Your task to perform on an android device: change your default location settings in chrome Image 0: 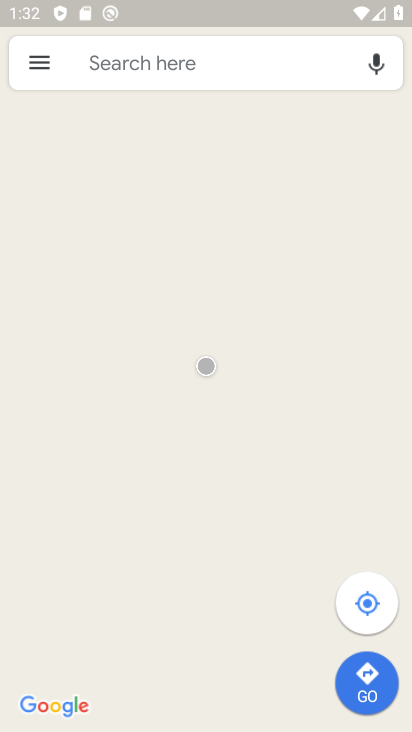
Step 0: press home button
Your task to perform on an android device: change your default location settings in chrome Image 1: 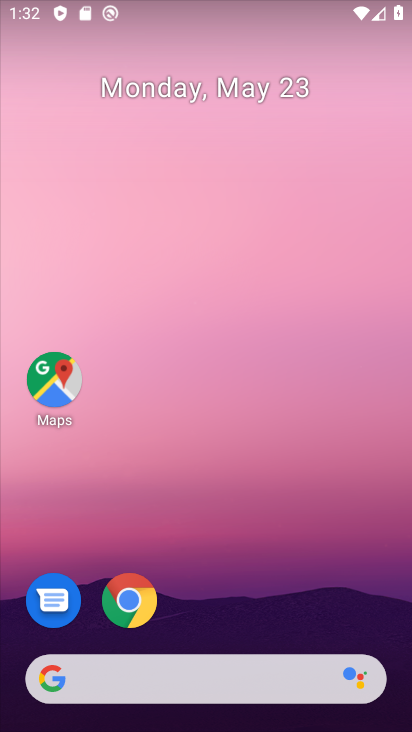
Step 1: drag from (227, 613) to (205, 97)
Your task to perform on an android device: change your default location settings in chrome Image 2: 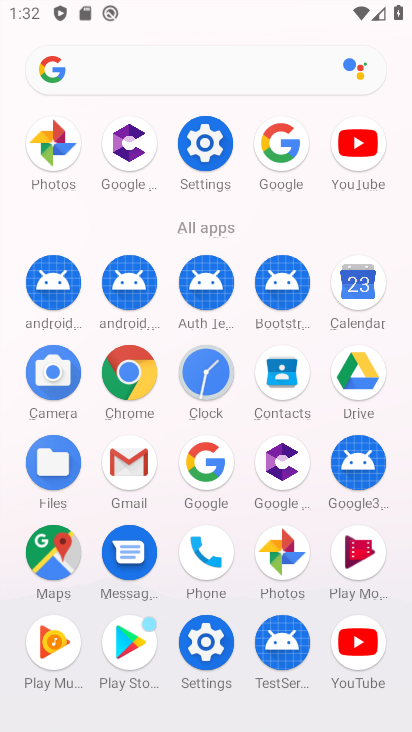
Step 2: click (150, 380)
Your task to perform on an android device: change your default location settings in chrome Image 3: 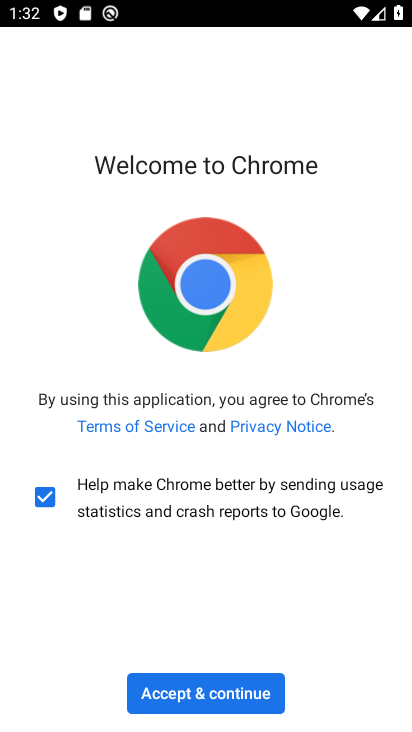
Step 3: click (167, 686)
Your task to perform on an android device: change your default location settings in chrome Image 4: 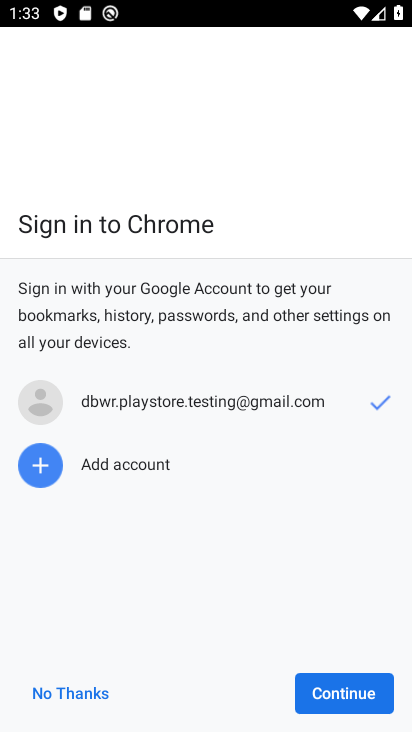
Step 4: click (333, 703)
Your task to perform on an android device: change your default location settings in chrome Image 5: 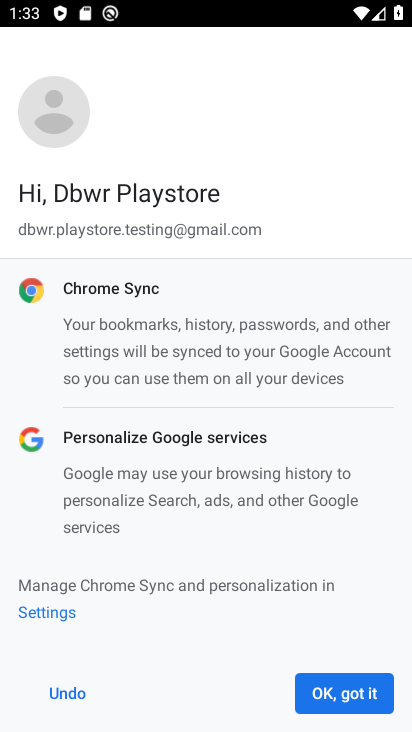
Step 5: click (333, 703)
Your task to perform on an android device: change your default location settings in chrome Image 6: 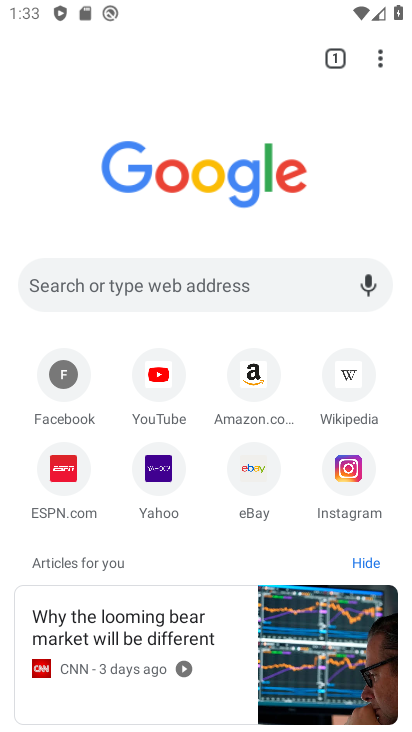
Step 6: click (382, 67)
Your task to perform on an android device: change your default location settings in chrome Image 7: 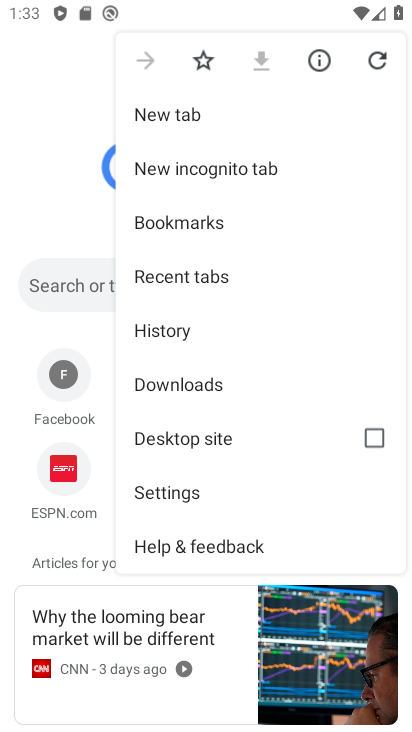
Step 7: click (196, 499)
Your task to perform on an android device: change your default location settings in chrome Image 8: 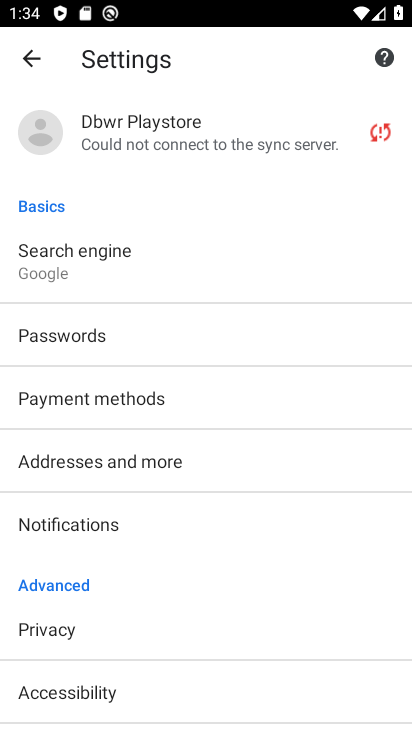
Step 8: click (98, 266)
Your task to perform on an android device: change your default location settings in chrome Image 9: 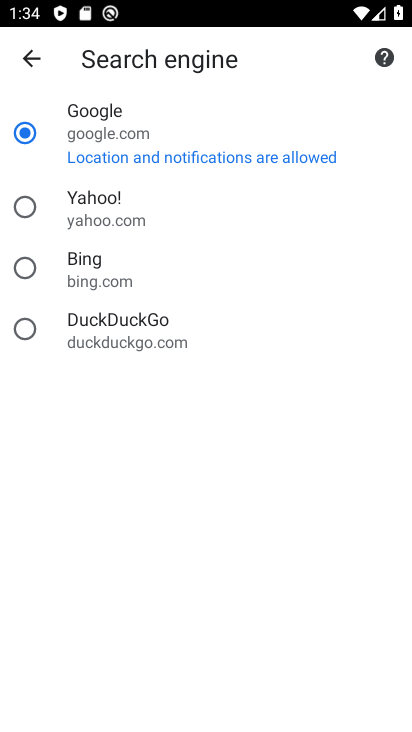
Step 9: click (121, 234)
Your task to perform on an android device: change your default location settings in chrome Image 10: 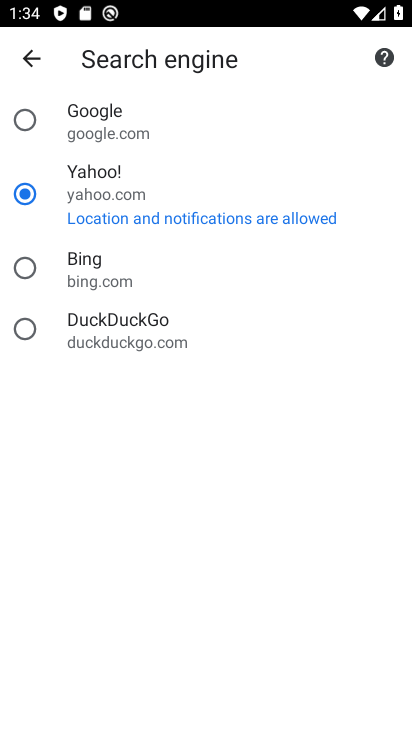
Step 10: task complete